Your task to perform on an android device: uninstall "Microsoft Outlook" Image 0: 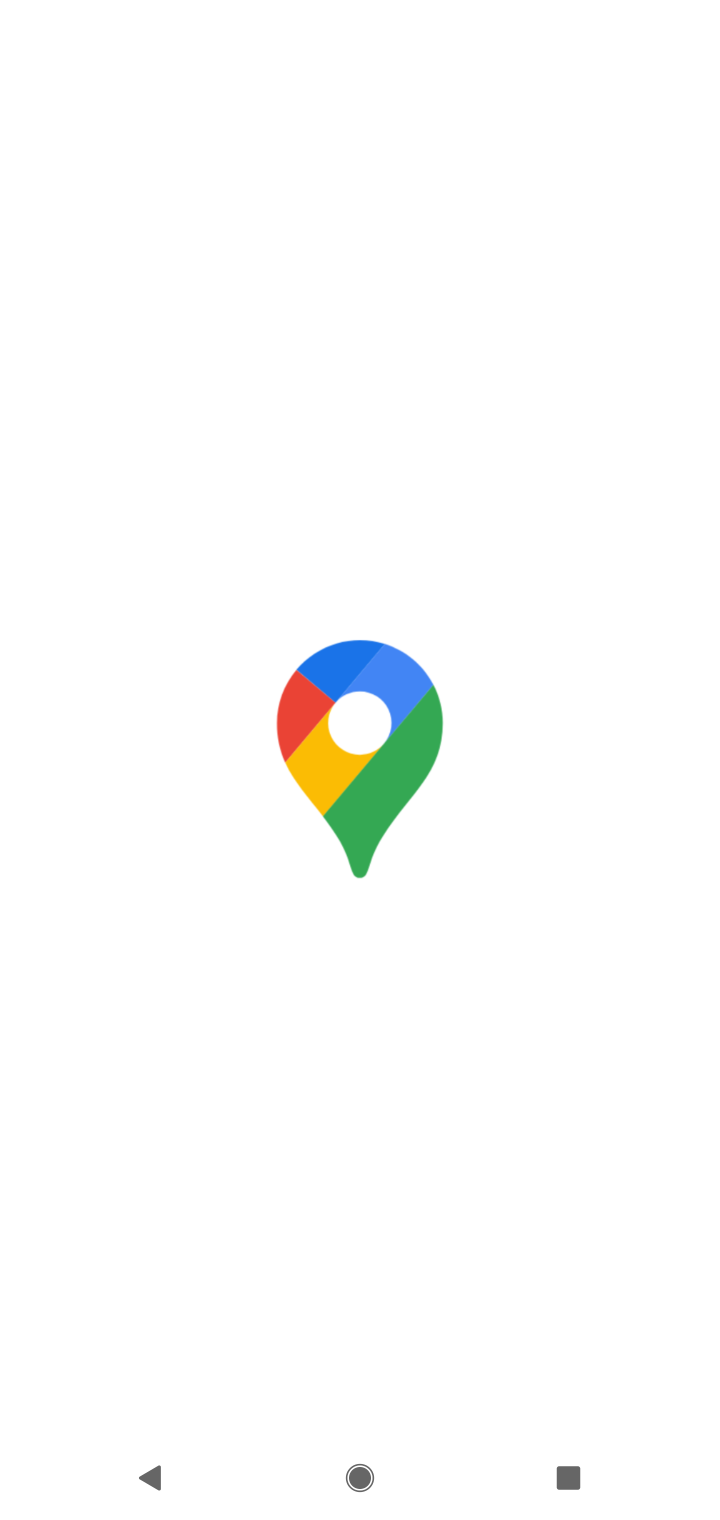
Step 0: press home button
Your task to perform on an android device: uninstall "Microsoft Outlook" Image 1: 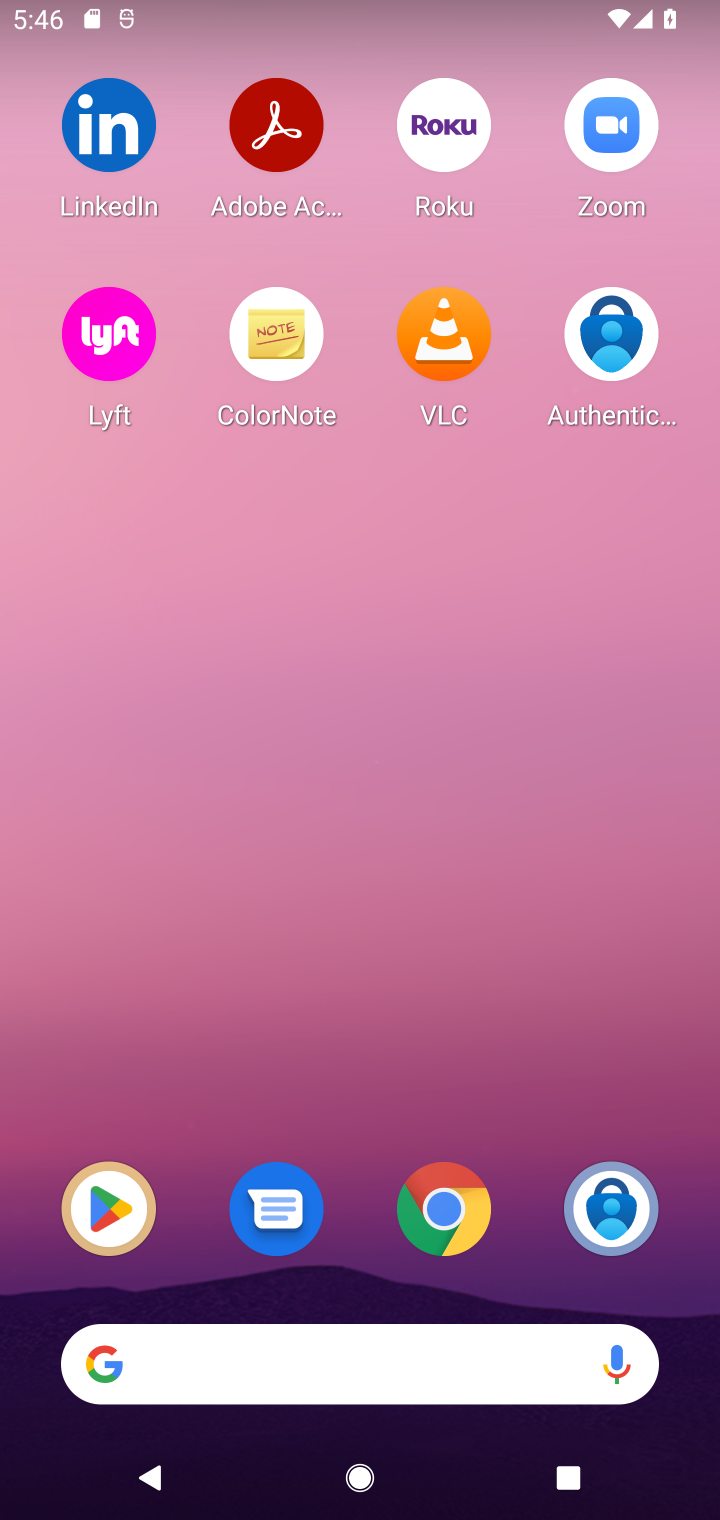
Step 1: click (90, 1211)
Your task to perform on an android device: uninstall "Microsoft Outlook" Image 2: 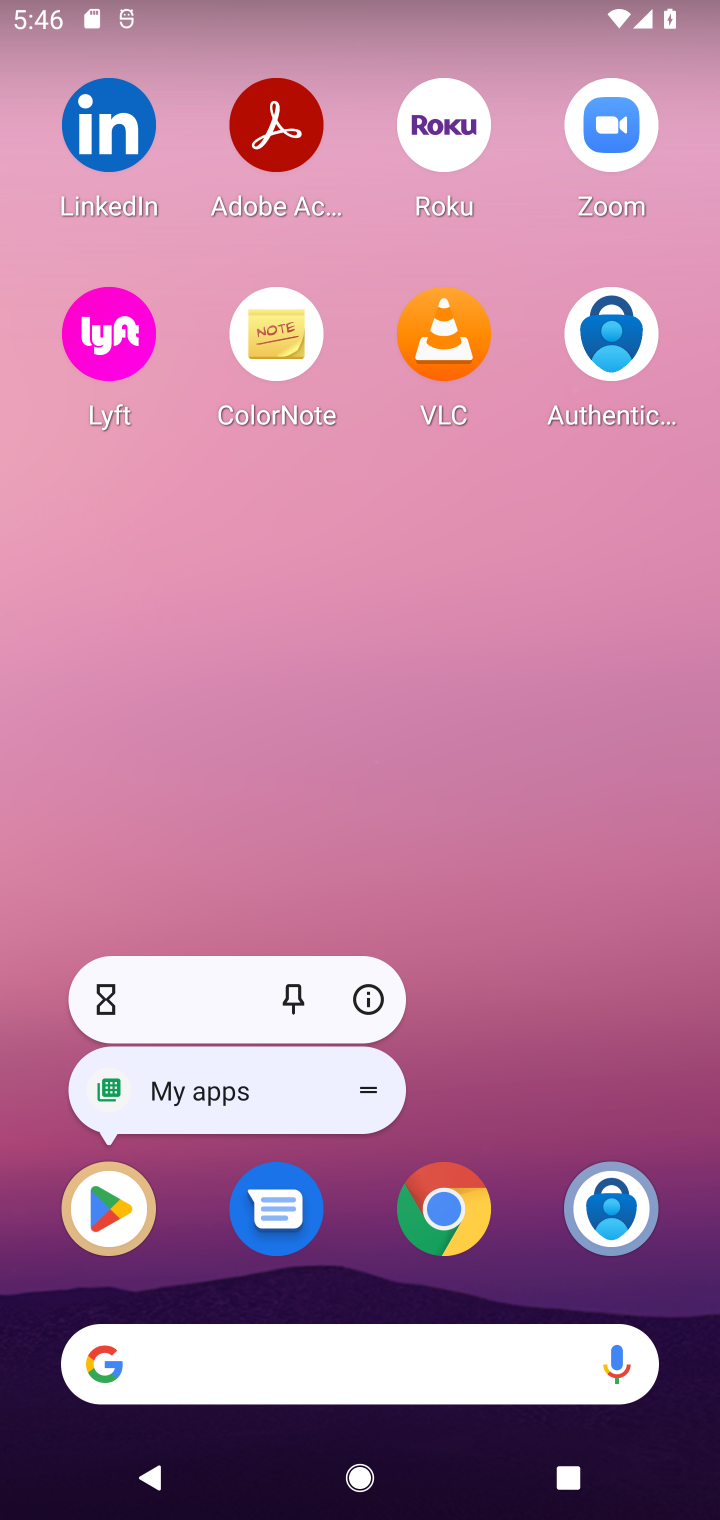
Step 2: click (90, 1211)
Your task to perform on an android device: uninstall "Microsoft Outlook" Image 3: 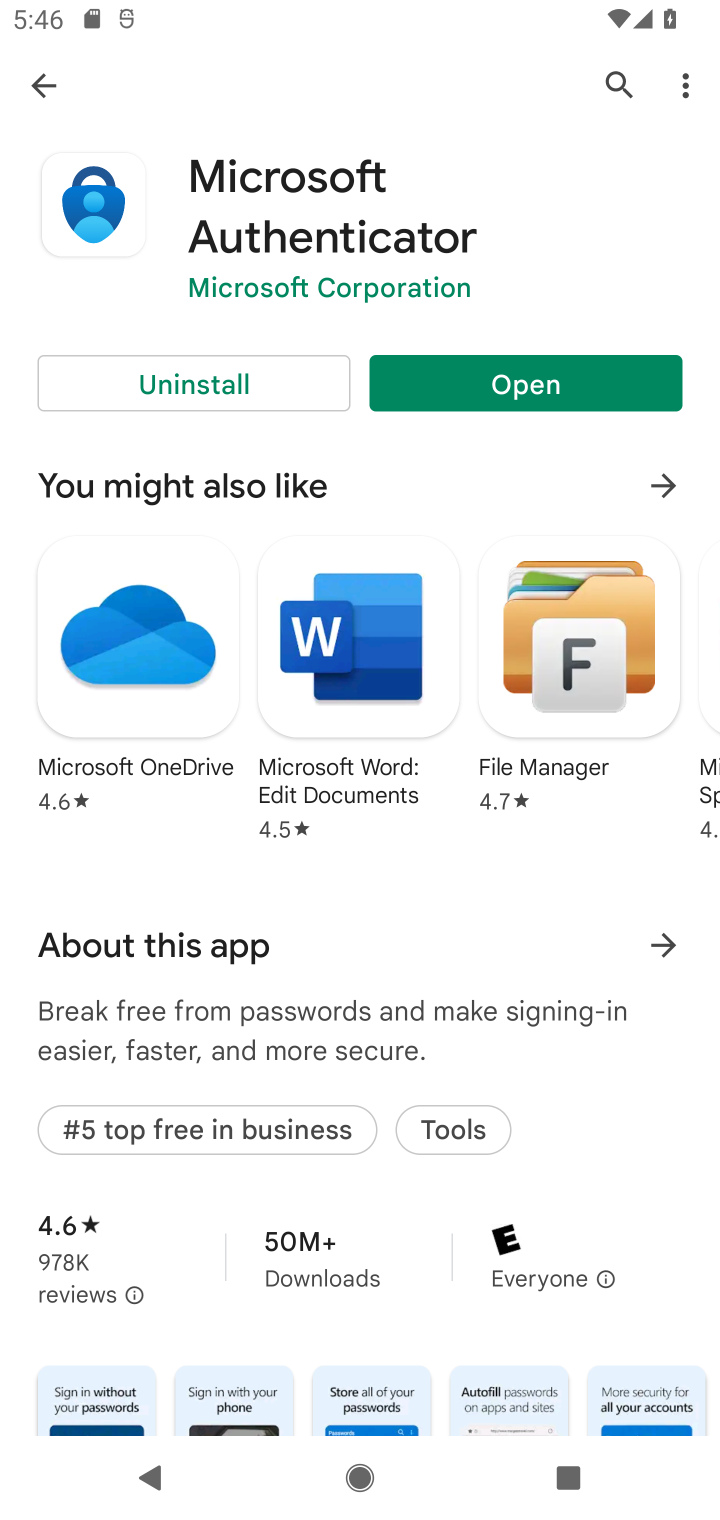
Step 3: click (614, 71)
Your task to perform on an android device: uninstall "Microsoft Outlook" Image 4: 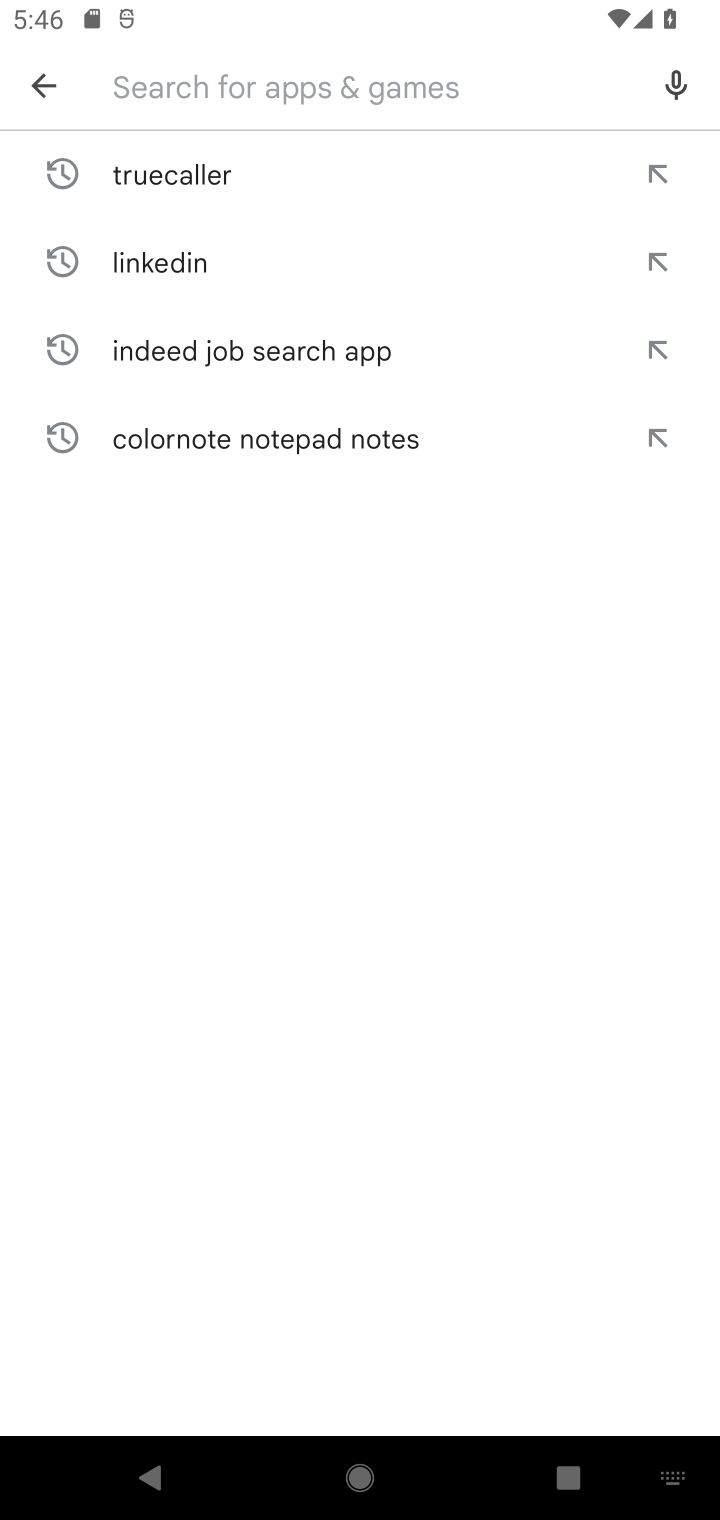
Step 4: type "Microsoft Outlook"
Your task to perform on an android device: uninstall "Microsoft Outlook" Image 5: 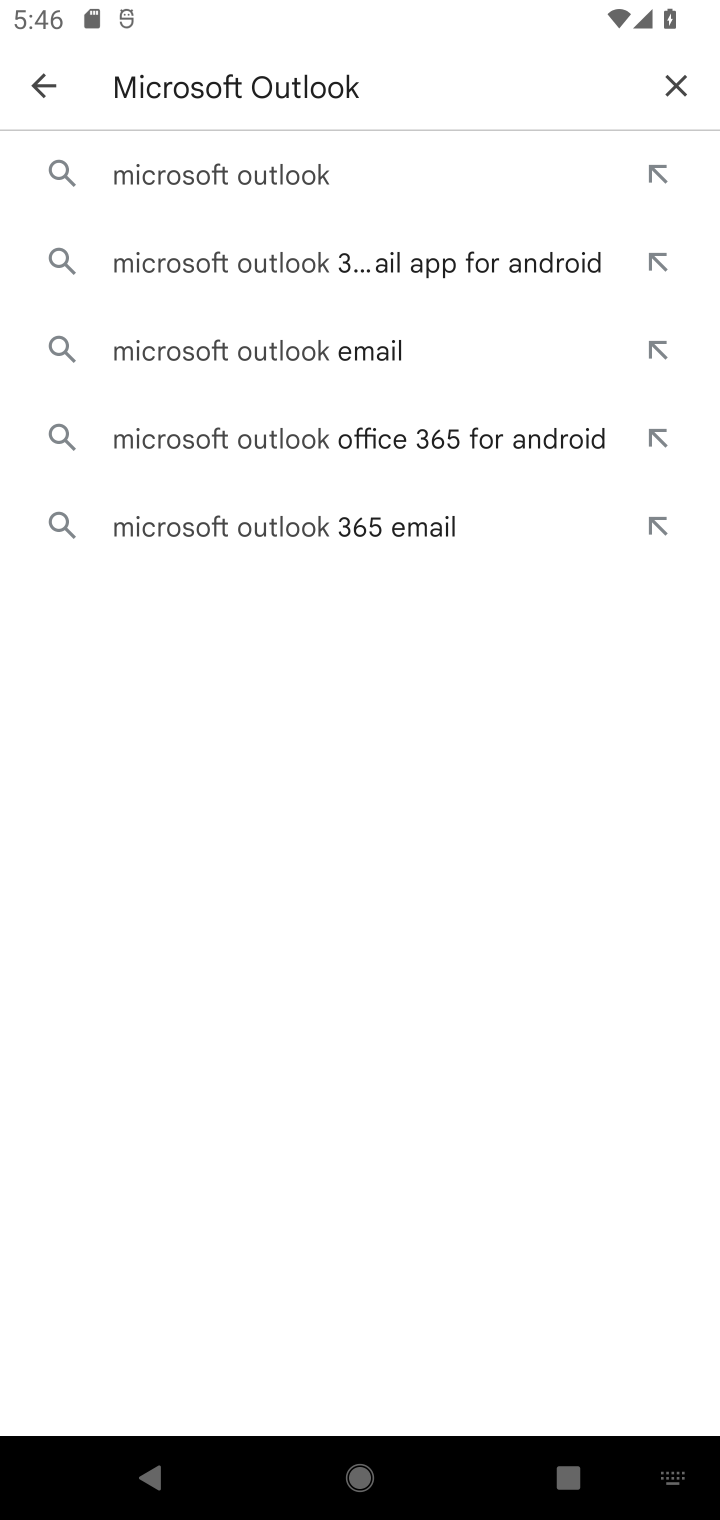
Step 5: click (171, 187)
Your task to perform on an android device: uninstall "Microsoft Outlook" Image 6: 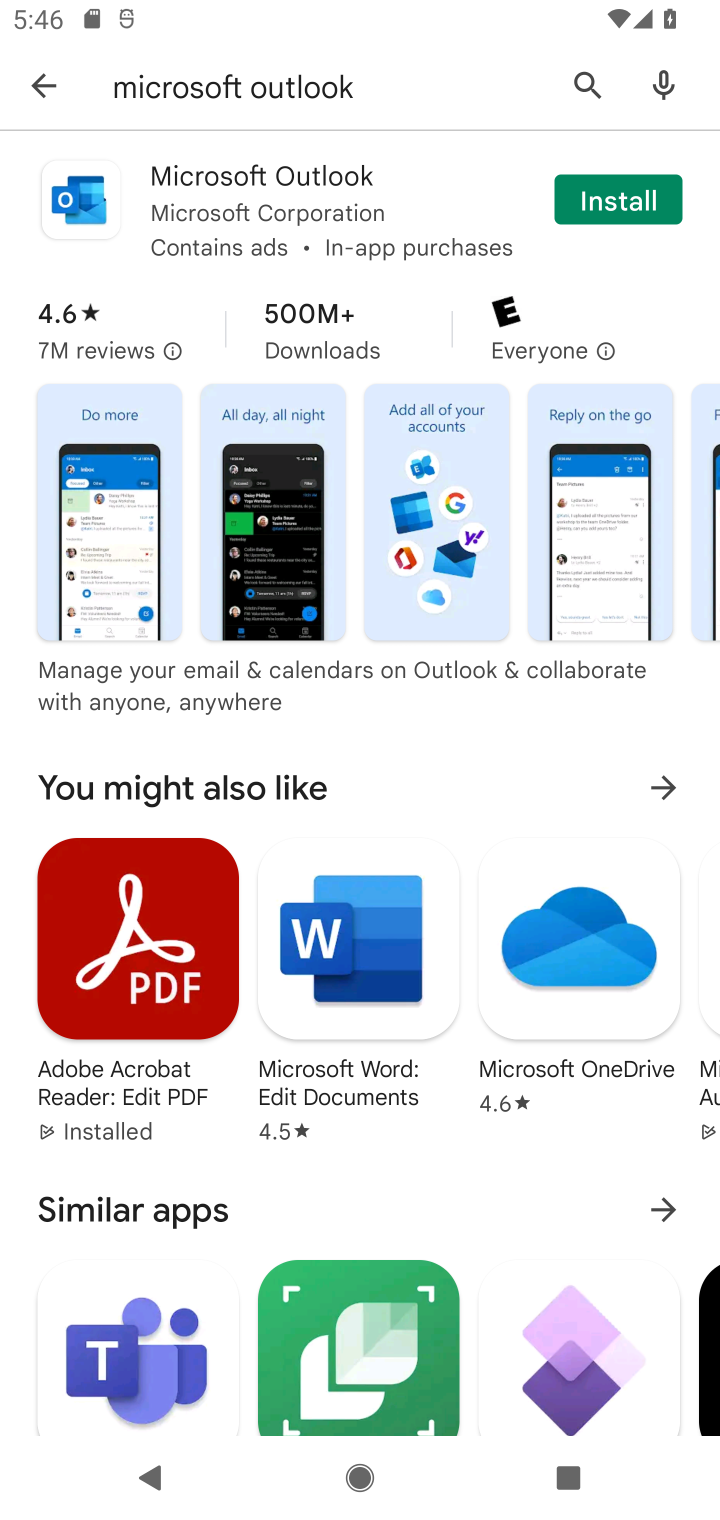
Step 6: task complete